Your task to perform on an android device: Open the Play Movies app and select the watchlist tab. Image 0: 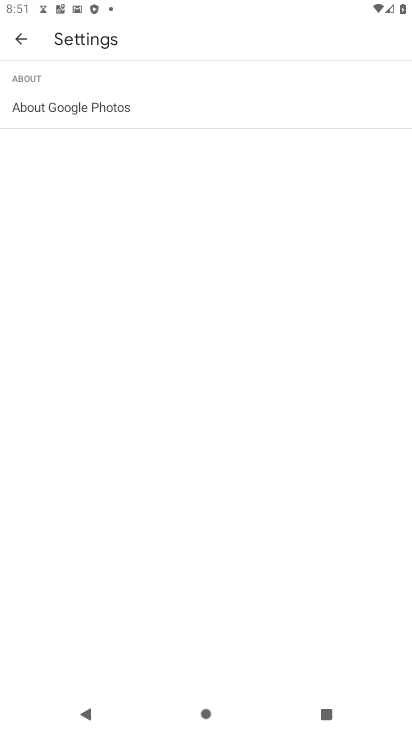
Step 0: click (367, 355)
Your task to perform on an android device: Open the Play Movies app and select the watchlist tab. Image 1: 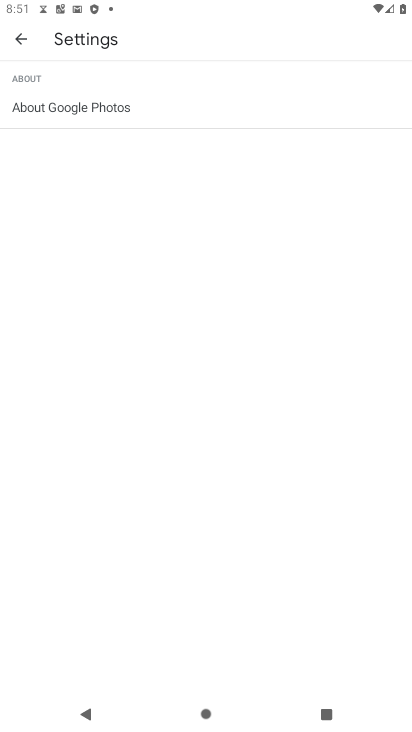
Step 1: press home button
Your task to perform on an android device: Open the Play Movies app and select the watchlist tab. Image 2: 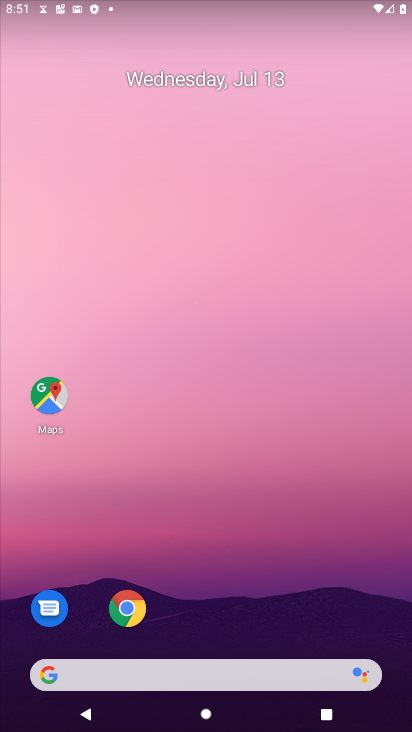
Step 2: drag from (198, 637) to (337, 81)
Your task to perform on an android device: Open the Play Movies app and select the watchlist tab. Image 3: 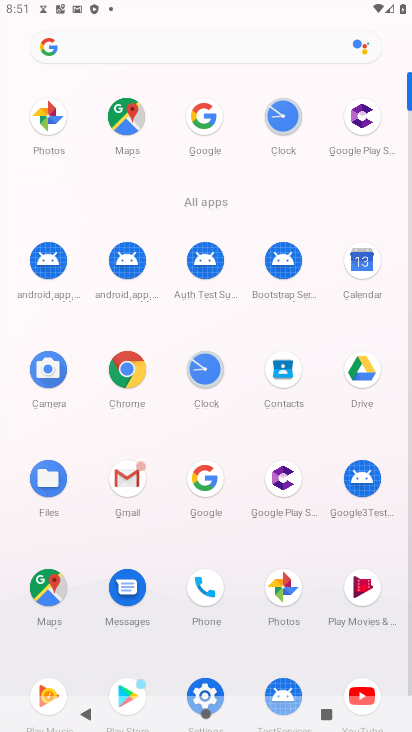
Step 3: click (359, 600)
Your task to perform on an android device: Open the Play Movies app and select the watchlist tab. Image 4: 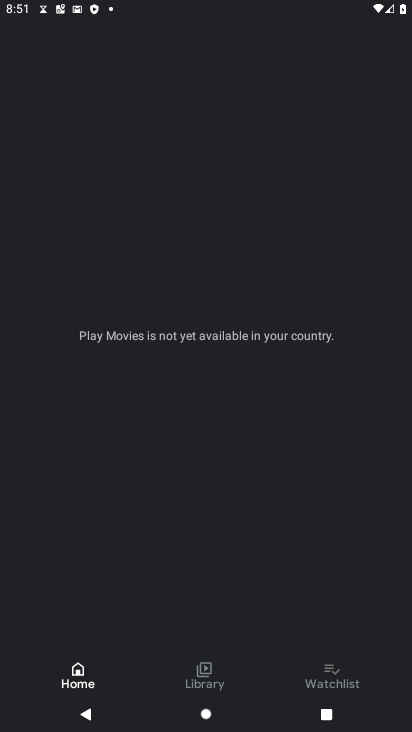
Step 4: click (343, 685)
Your task to perform on an android device: Open the Play Movies app and select the watchlist tab. Image 5: 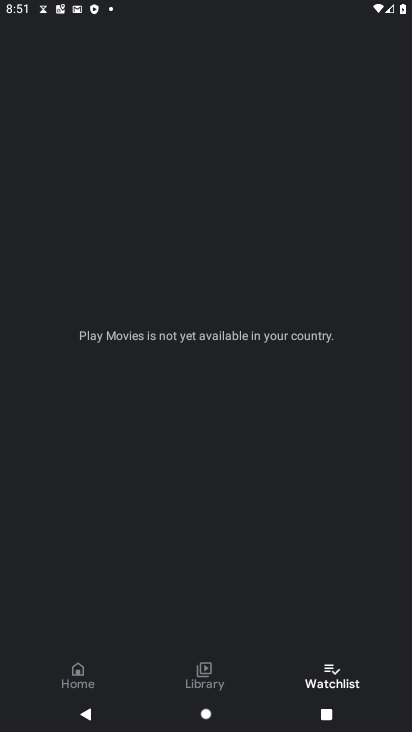
Step 5: task complete